Your task to perform on an android device: toggle data saver in the chrome app Image 0: 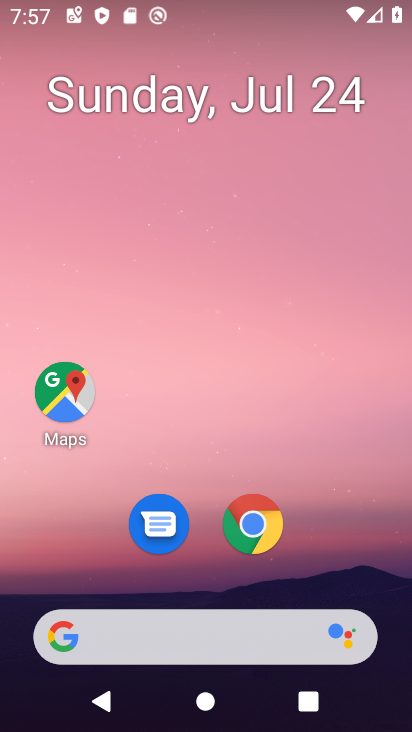
Step 0: press home button
Your task to perform on an android device: toggle data saver in the chrome app Image 1: 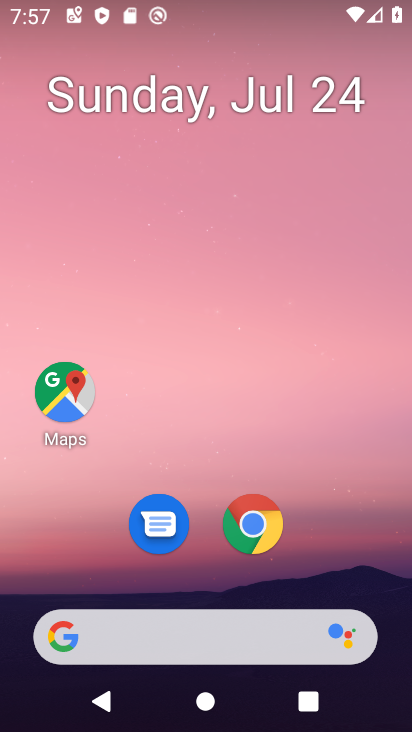
Step 1: click (264, 523)
Your task to perform on an android device: toggle data saver in the chrome app Image 2: 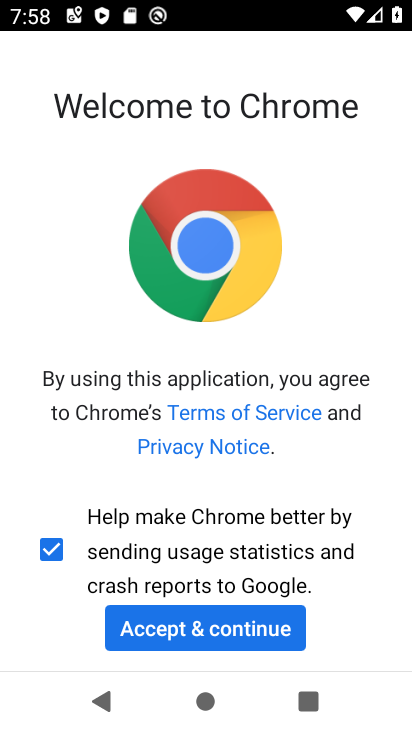
Step 2: click (223, 621)
Your task to perform on an android device: toggle data saver in the chrome app Image 3: 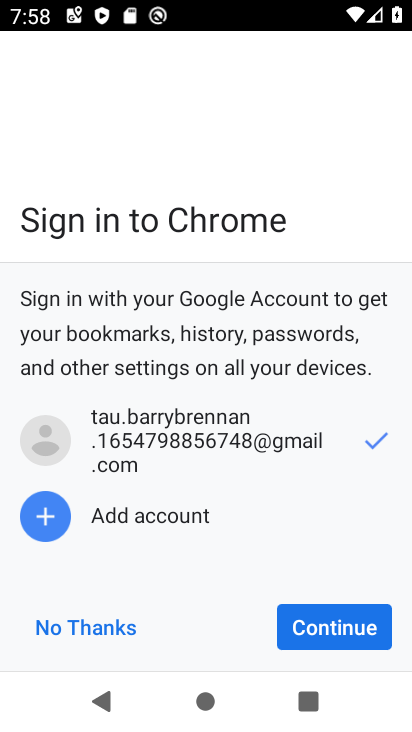
Step 3: click (349, 632)
Your task to perform on an android device: toggle data saver in the chrome app Image 4: 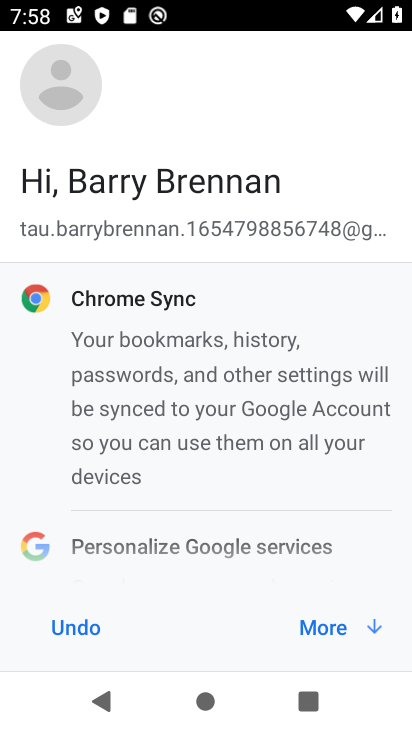
Step 4: click (342, 622)
Your task to perform on an android device: toggle data saver in the chrome app Image 5: 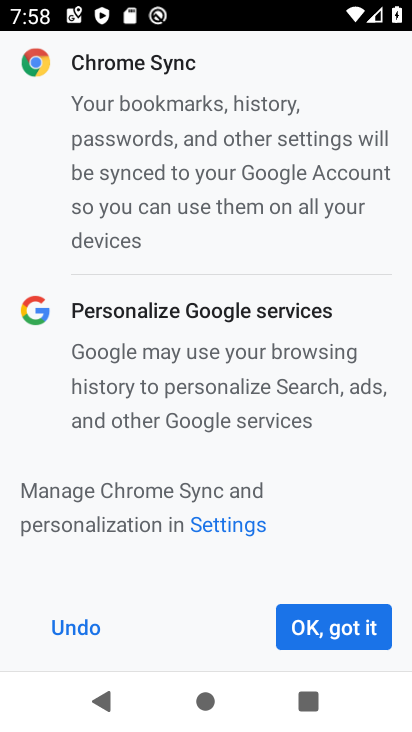
Step 5: click (331, 627)
Your task to perform on an android device: toggle data saver in the chrome app Image 6: 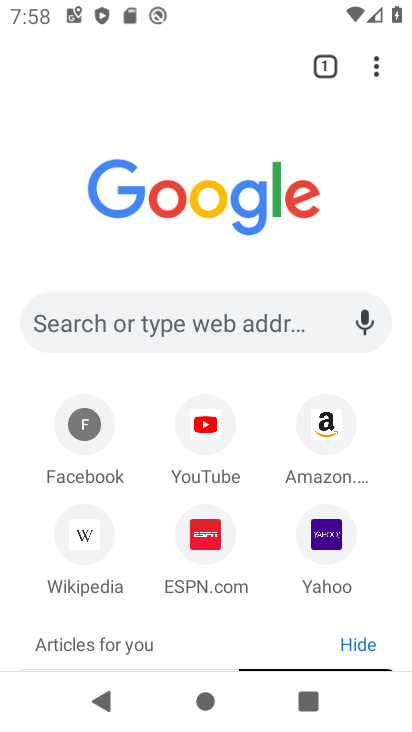
Step 6: drag from (373, 63) to (262, 561)
Your task to perform on an android device: toggle data saver in the chrome app Image 7: 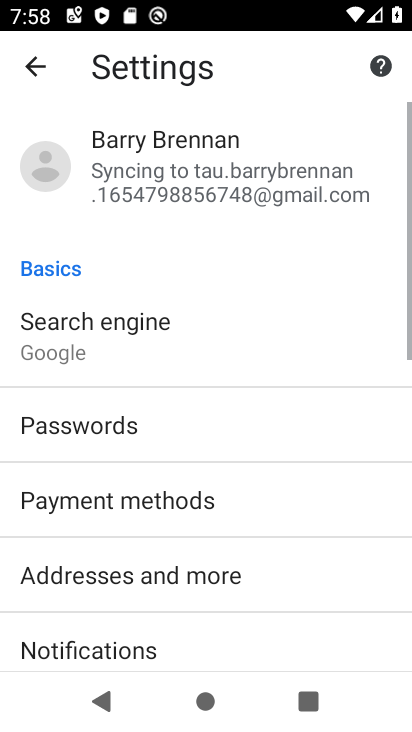
Step 7: drag from (268, 419) to (346, 76)
Your task to perform on an android device: toggle data saver in the chrome app Image 8: 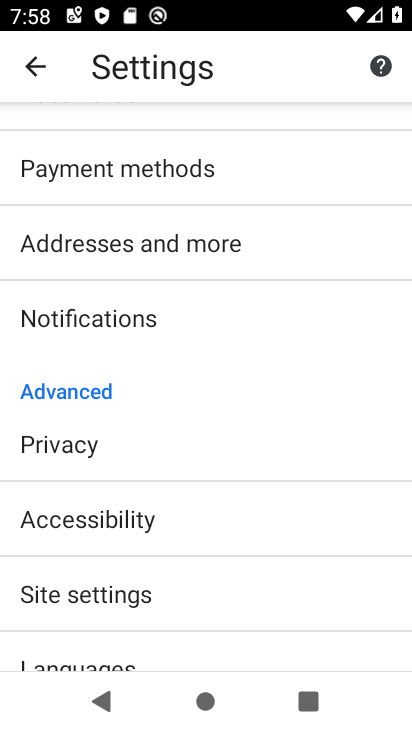
Step 8: drag from (272, 603) to (340, 209)
Your task to perform on an android device: toggle data saver in the chrome app Image 9: 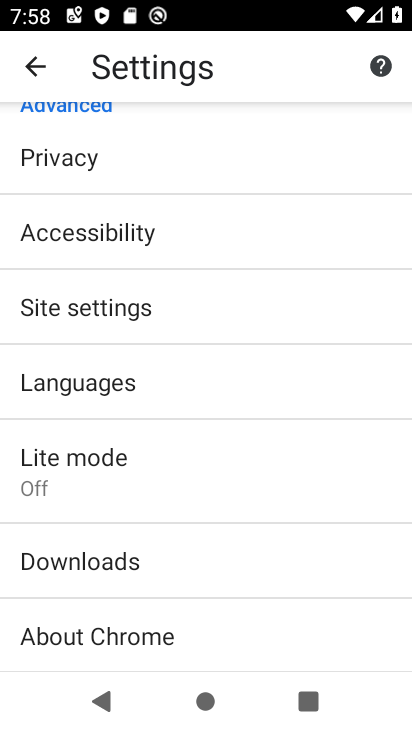
Step 9: click (114, 483)
Your task to perform on an android device: toggle data saver in the chrome app Image 10: 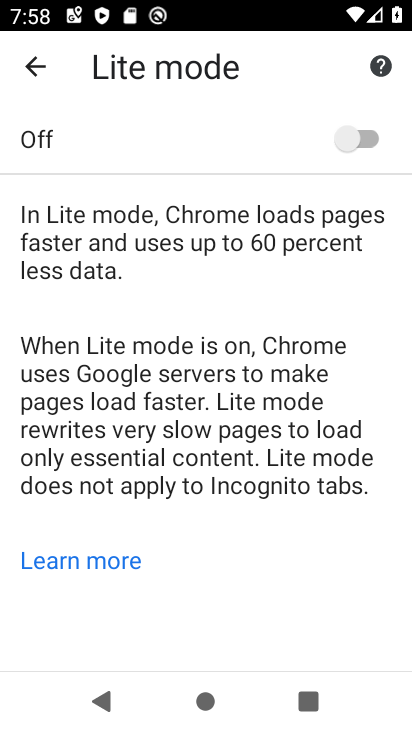
Step 10: click (369, 138)
Your task to perform on an android device: toggle data saver in the chrome app Image 11: 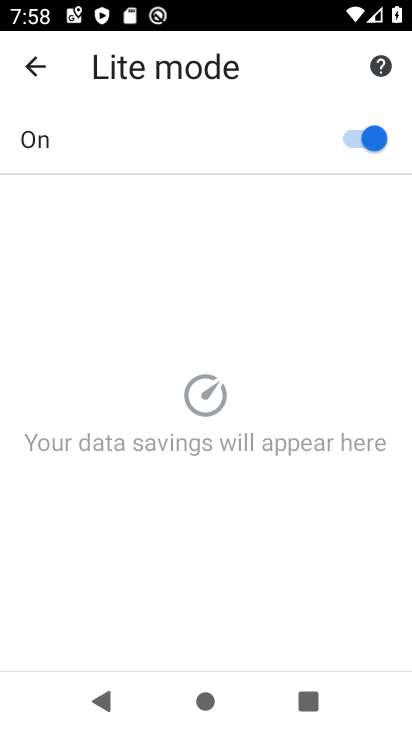
Step 11: task complete